Your task to perform on an android device: turn off wifi Image 0: 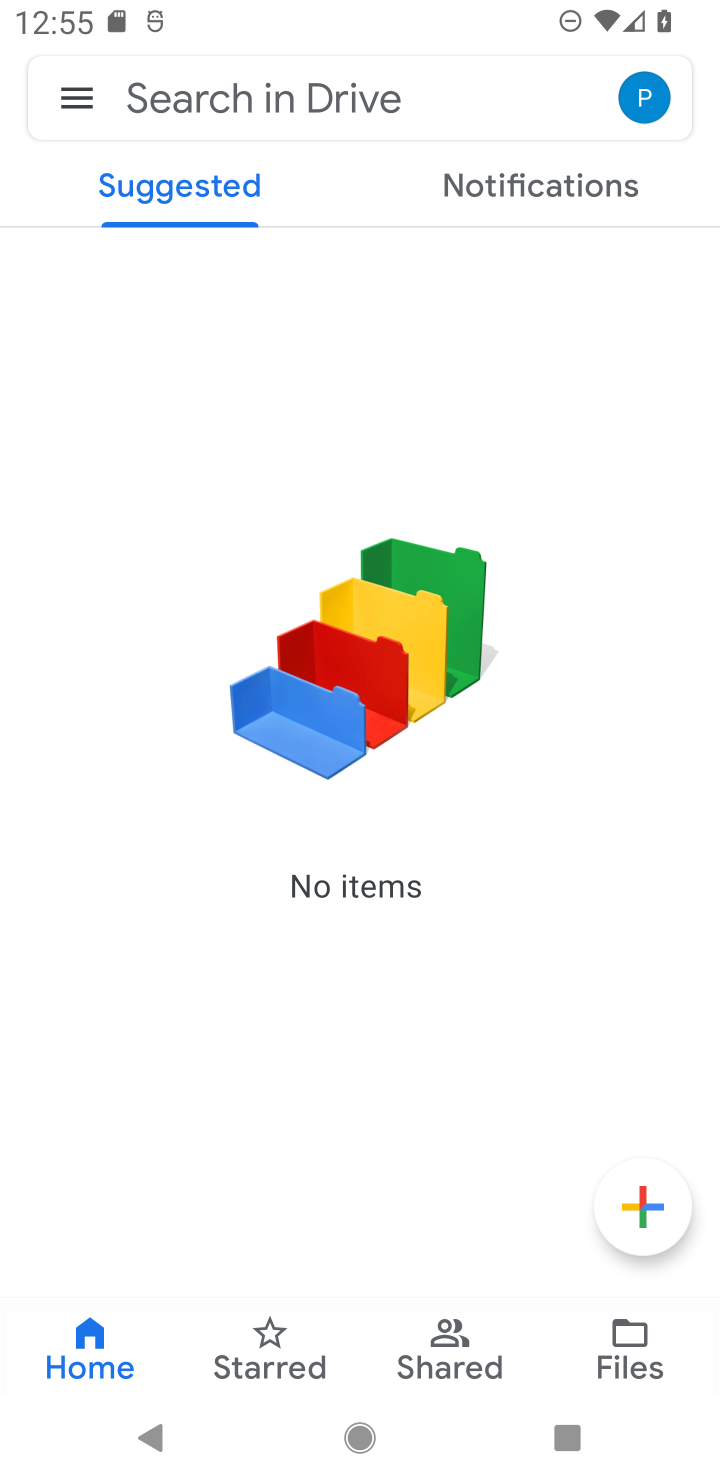
Step 0: press home button
Your task to perform on an android device: turn off wifi Image 1: 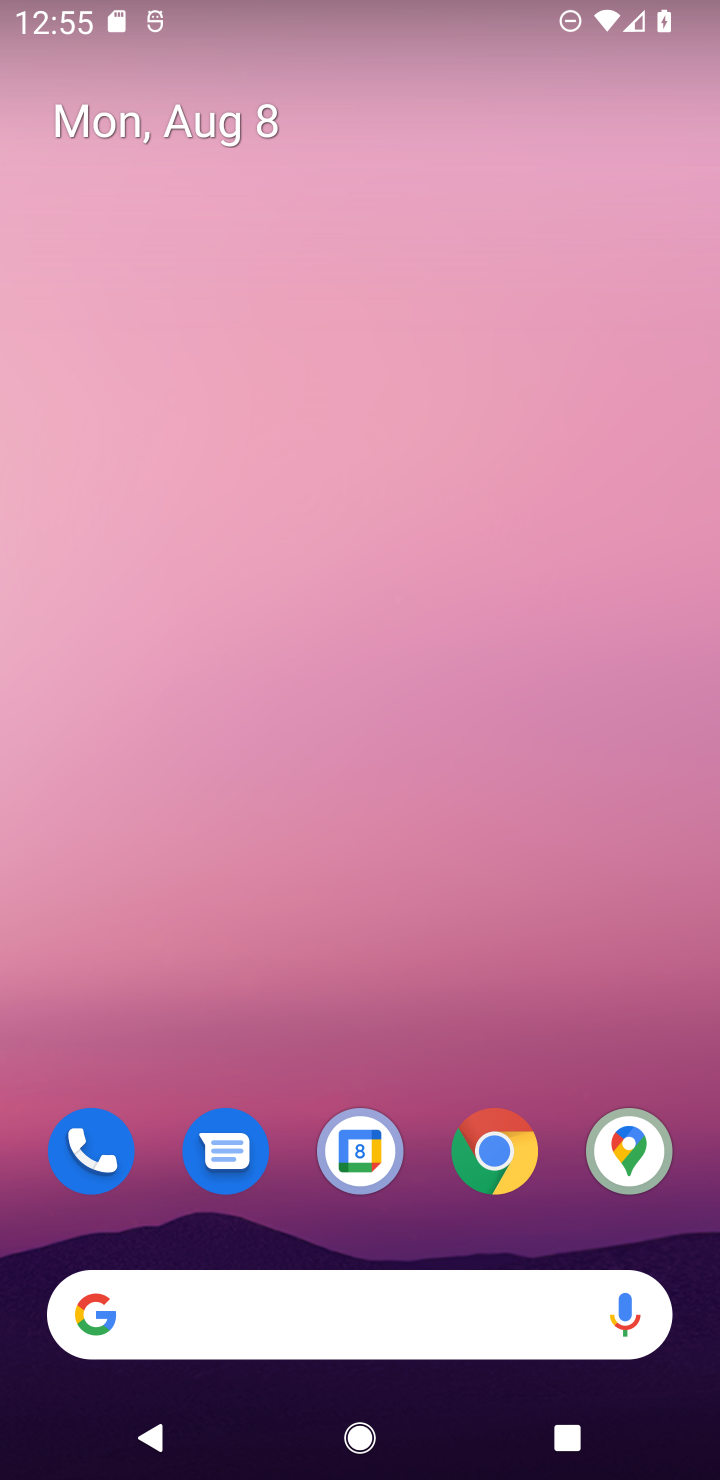
Step 1: drag from (272, 1276) to (214, 667)
Your task to perform on an android device: turn off wifi Image 2: 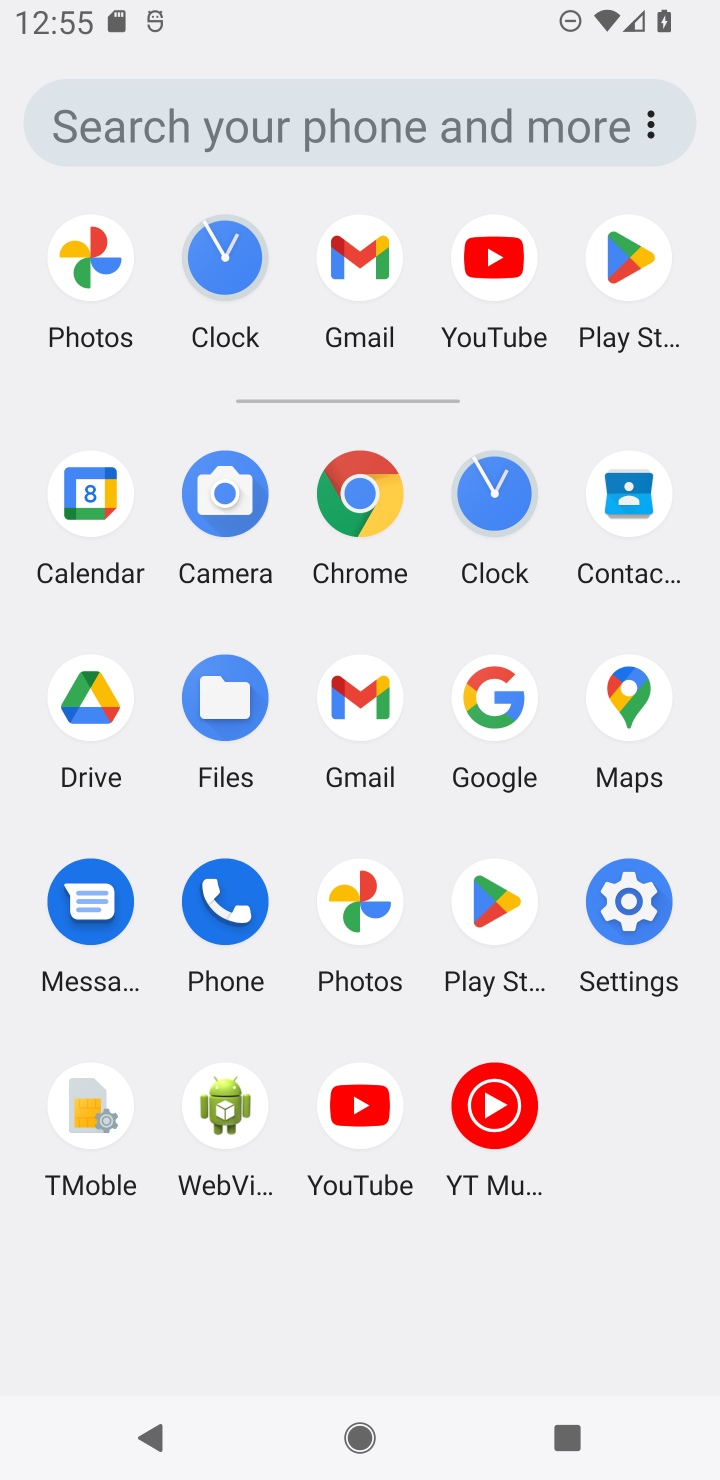
Step 2: click (619, 902)
Your task to perform on an android device: turn off wifi Image 3: 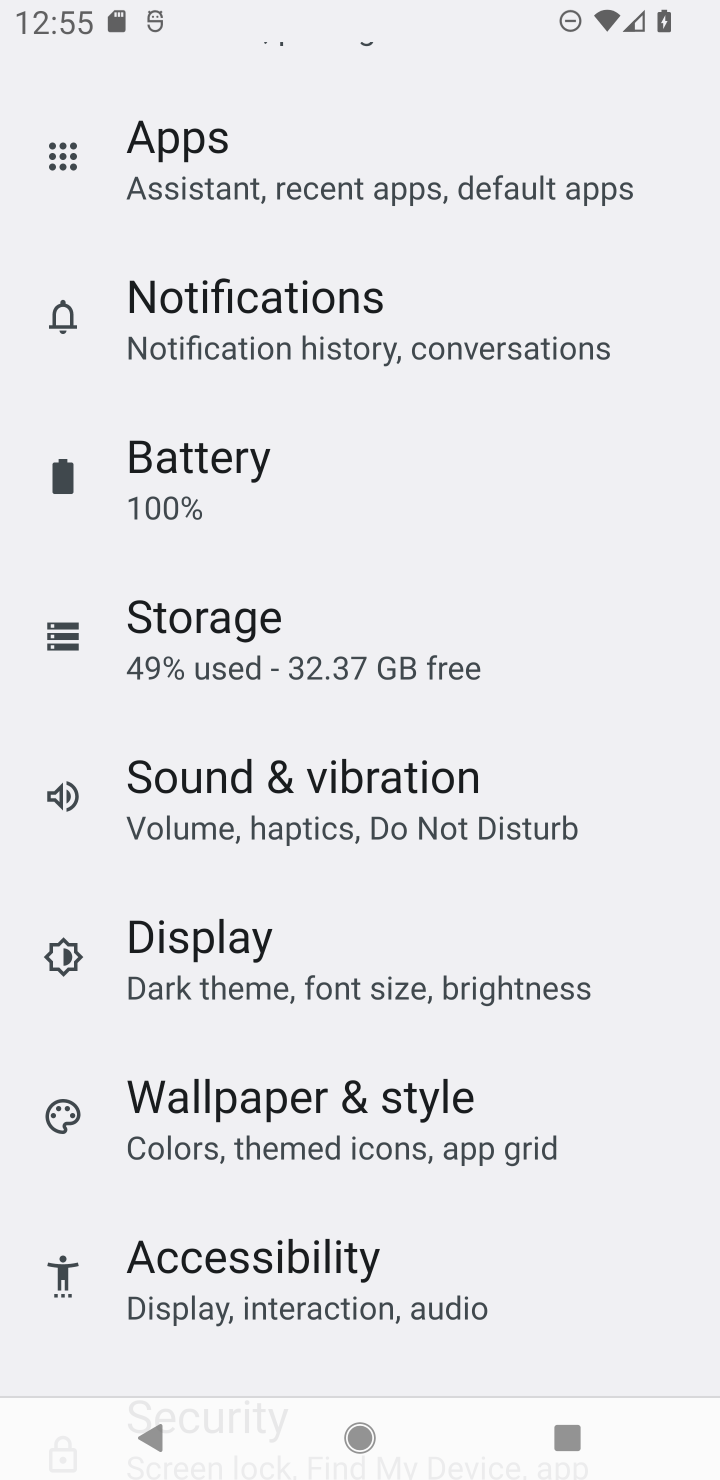
Step 3: drag from (305, 275) to (351, 1014)
Your task to perform on an android device: turn off wifi Image 4: 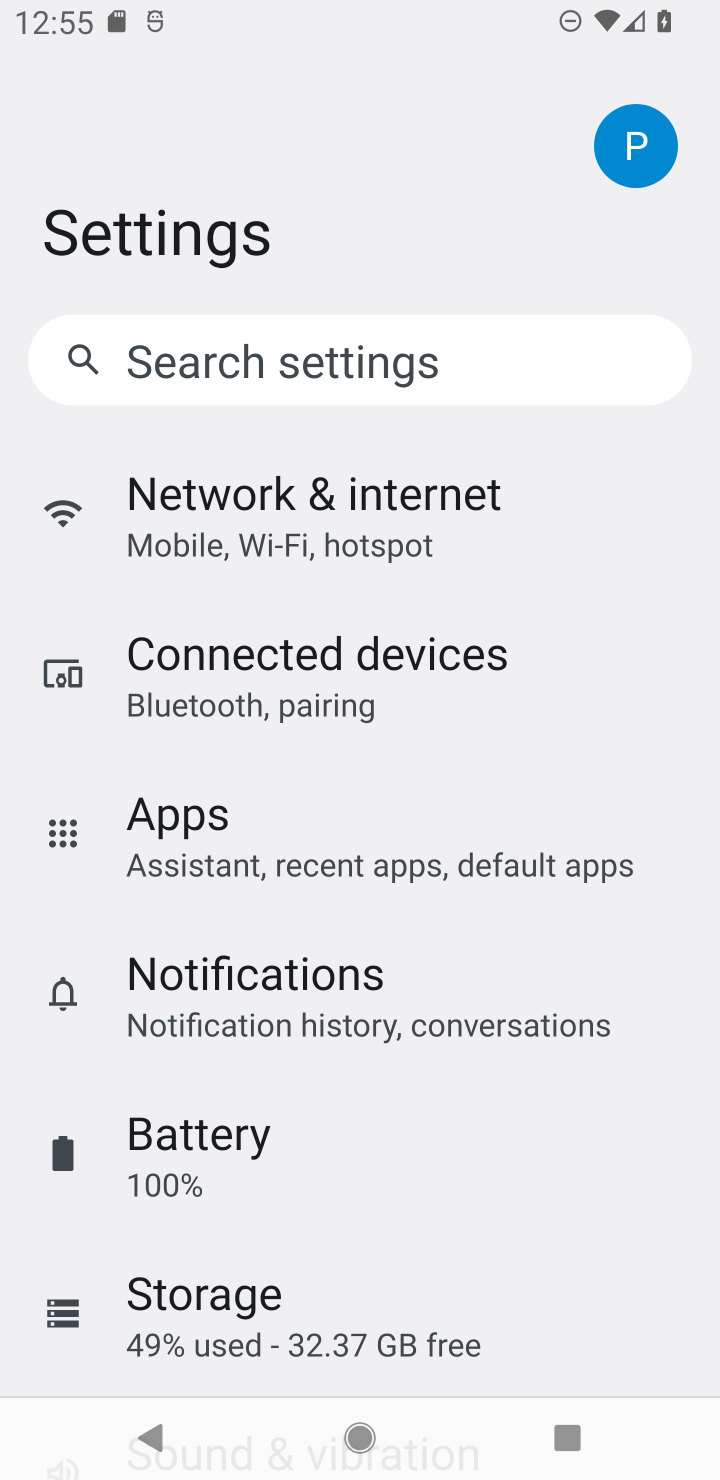
Step 4: drag from (224, 250) to (315, 822)
Your task to perform on an android device: turn off wifi Image 5: 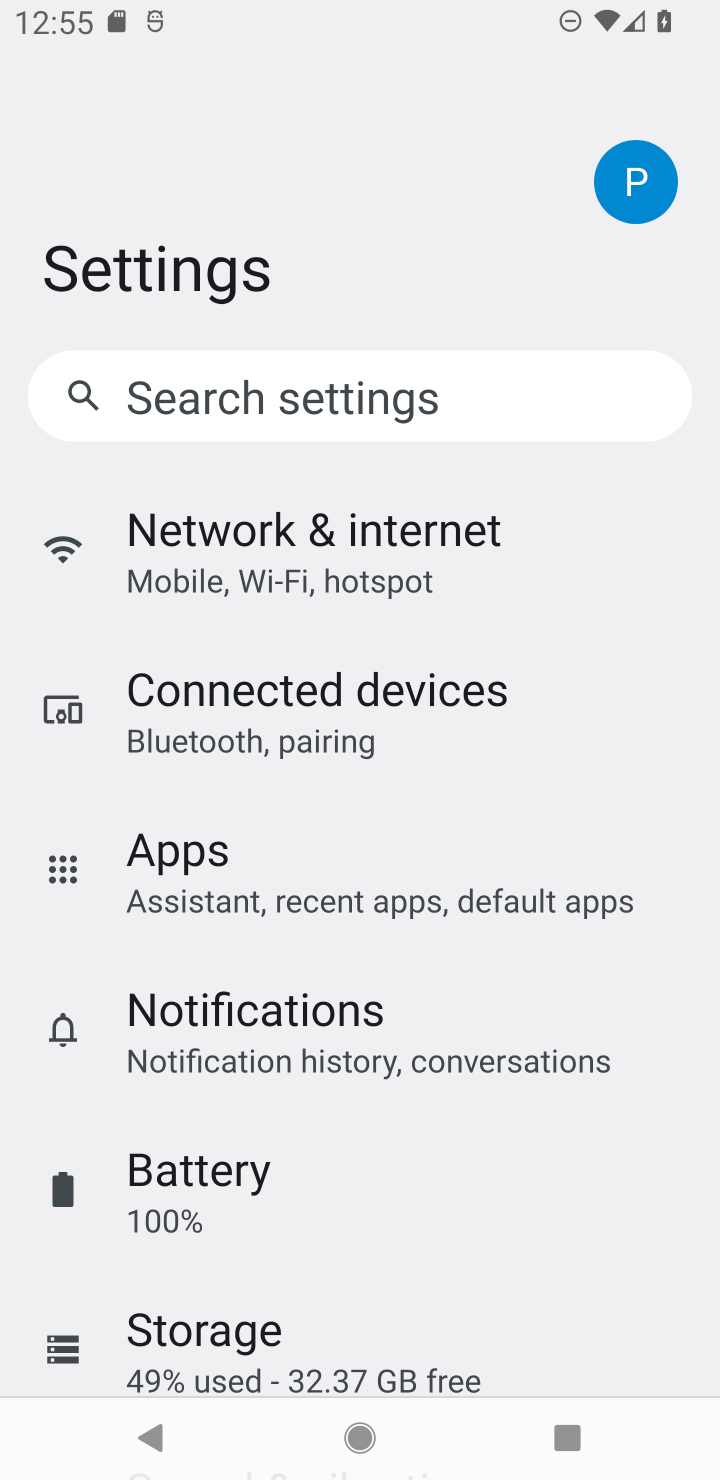
Step 5: click (260, 551)
Your task to perform on an android device: turn off wifi Image 6: 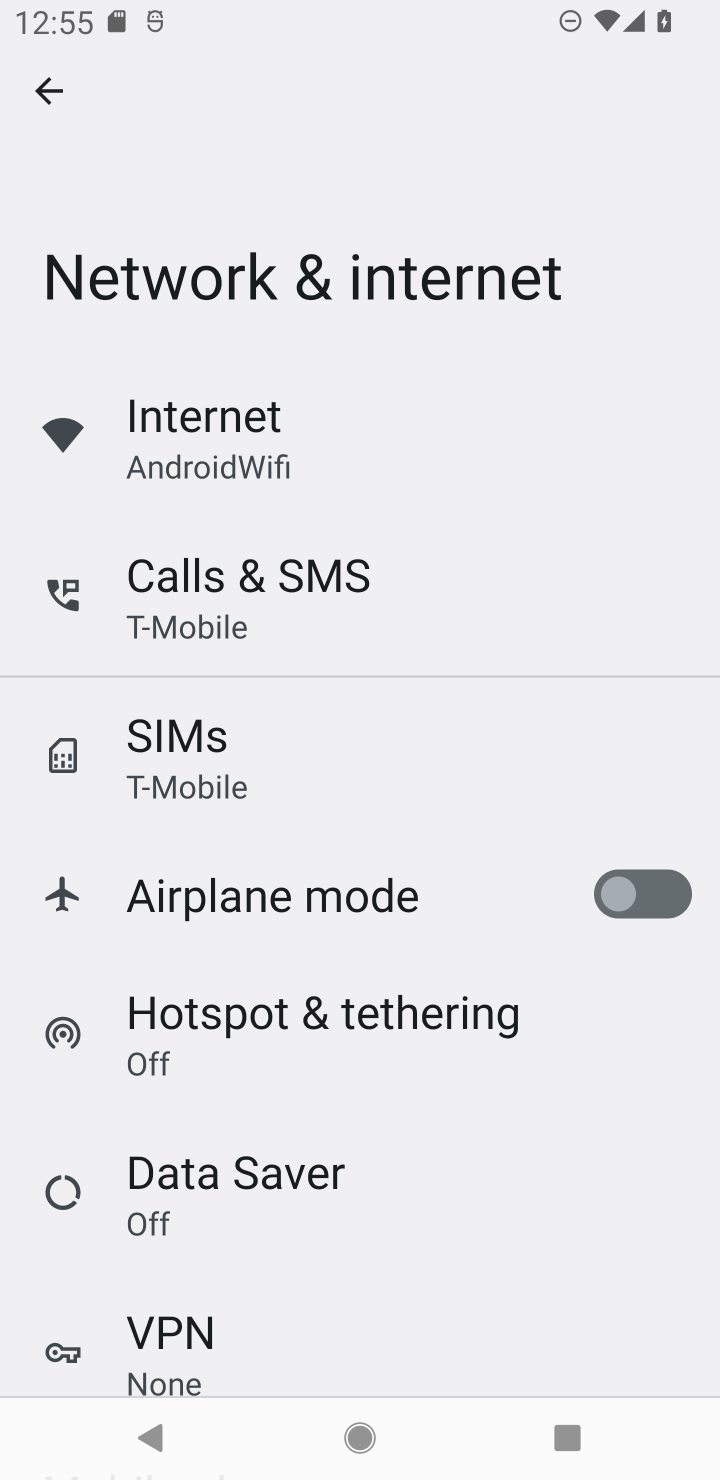
Step 6: click (178, 452)
Your task to perform on an android device: turn off wifi Image 7: 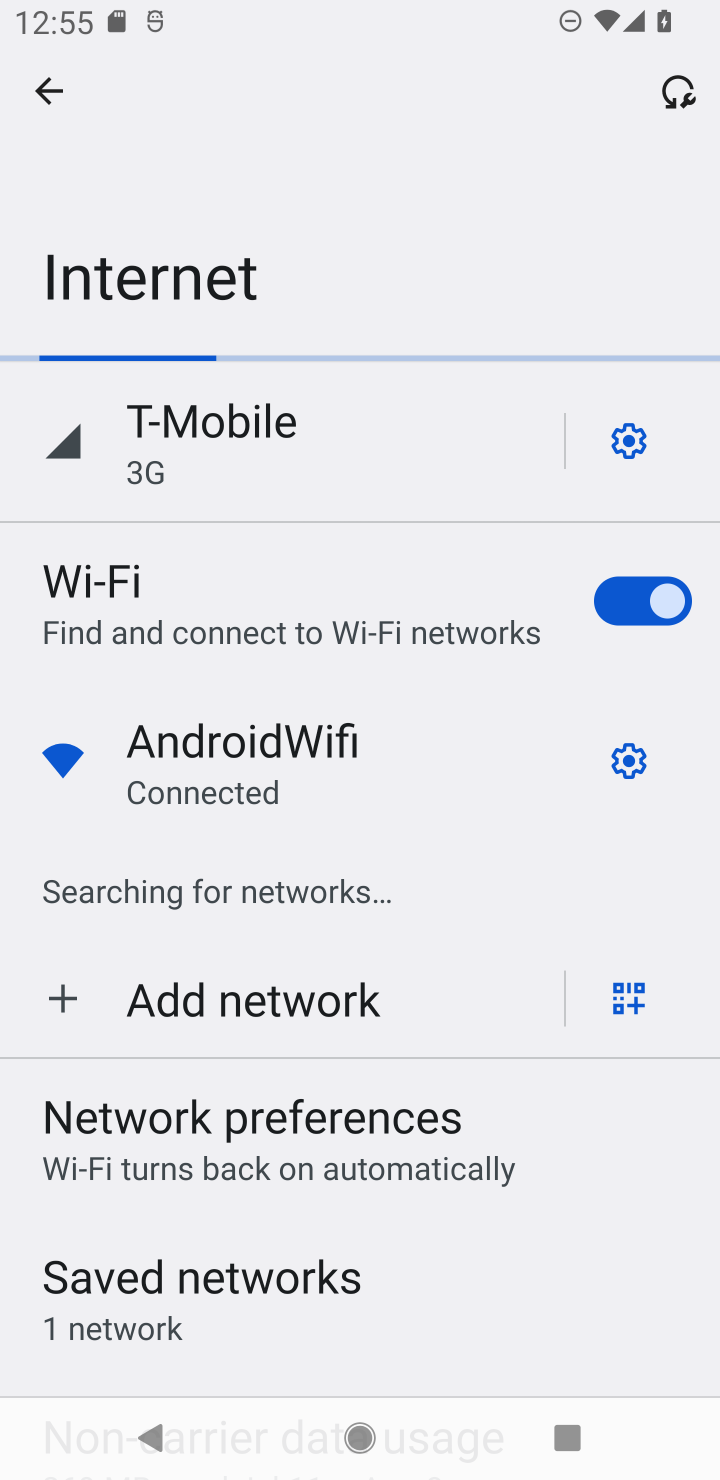
Step 7: click (634, 754)
Your task to perform on an android device: turn off wifi Image 8: 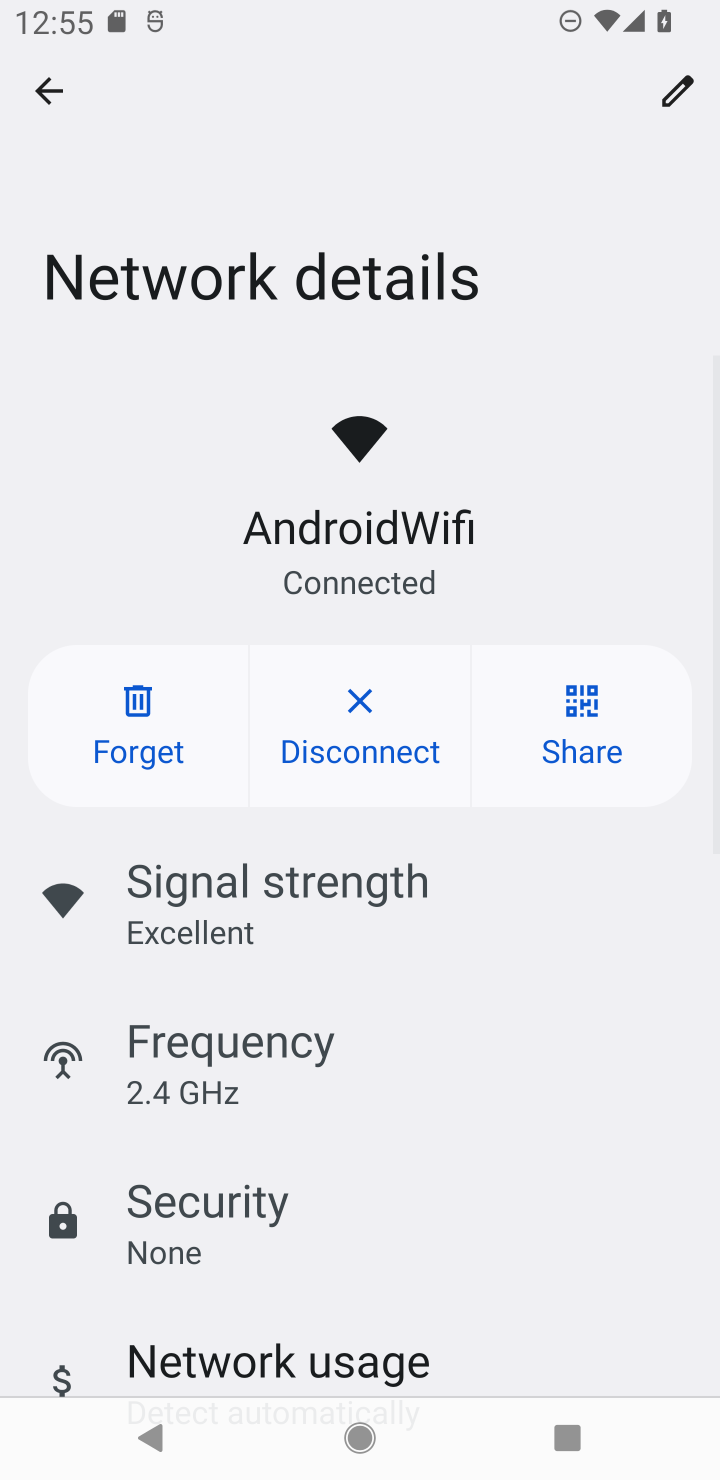
Step 8: task complete